Your task to perform on an android device: Go to Yahoo.com Image 0: 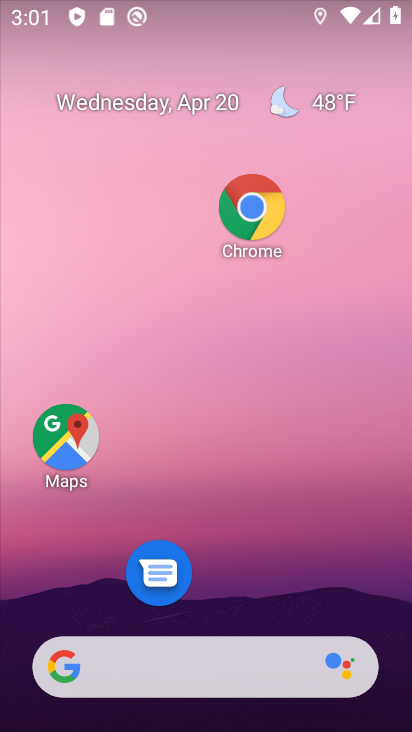
Step 0: drag from (277, 598) to (317, 216)
Your task to perform on an android device: Go to Yahoo.com Image 1: 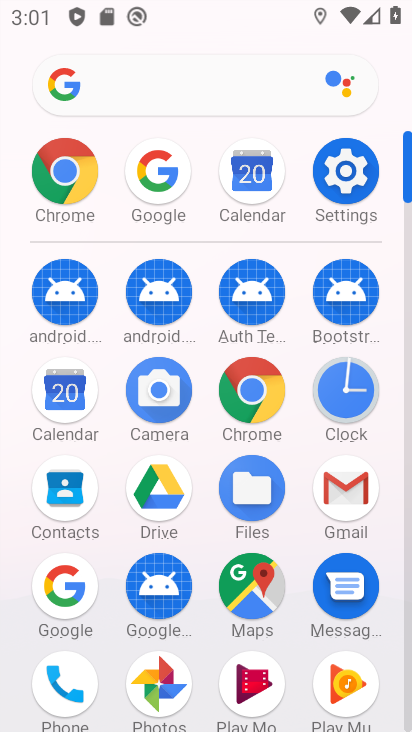
Step 1: click (249, 416)
Your task to perform on an android device: Go to Yahoo.com Image 2: 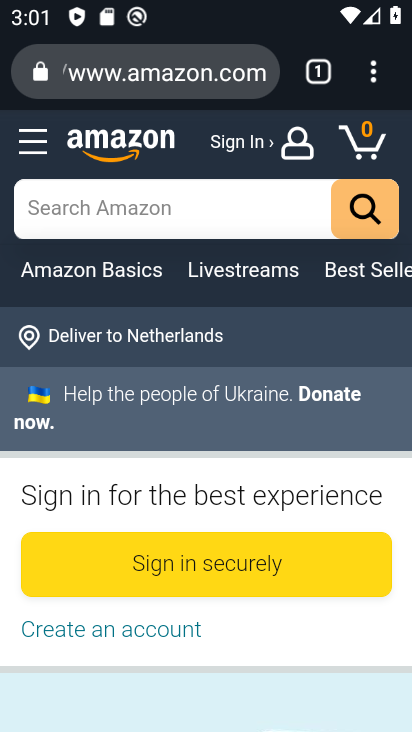
Step 2: click (370, 69)
Your task to perform on an android device: Go to Yahoo.com Image 3: 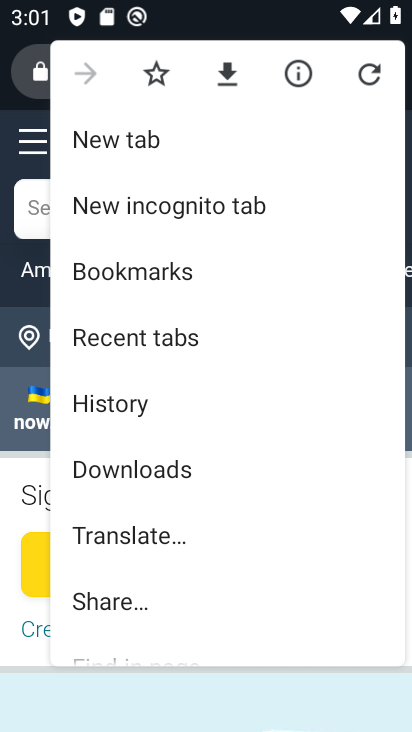
Step 3: click (32, 294)
Your task to perform on an android device: Go to Yahoo.com Image 4: 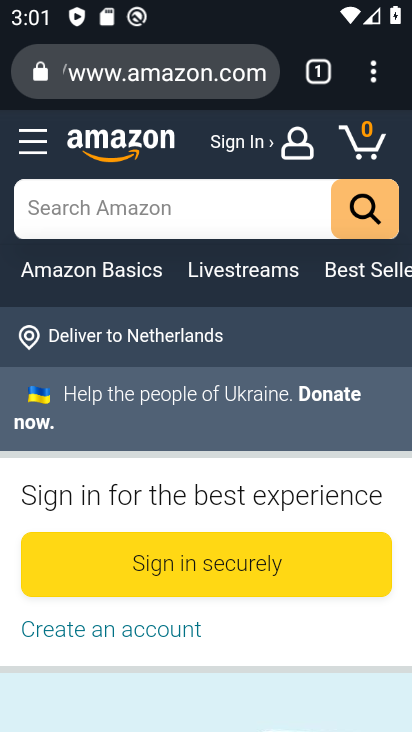
Step 4: drag from (313, 74) to (205, 483)
Your task to perform on an android device: Go to Yahoo.com Image 5: 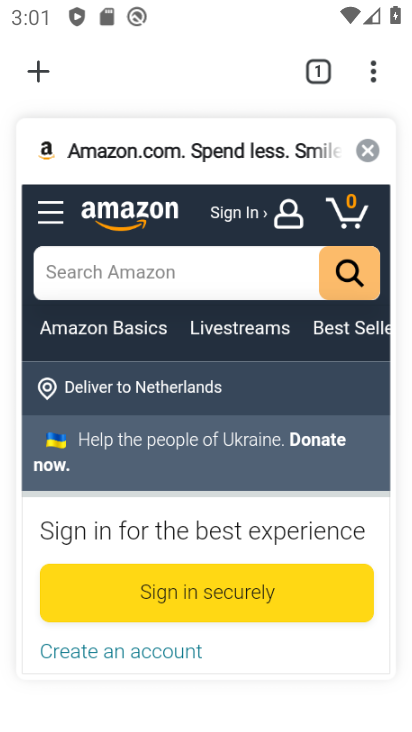
Step 5: click (28, 57)
Your task to perform on an android device: Go to Yahoo.com Image 6: 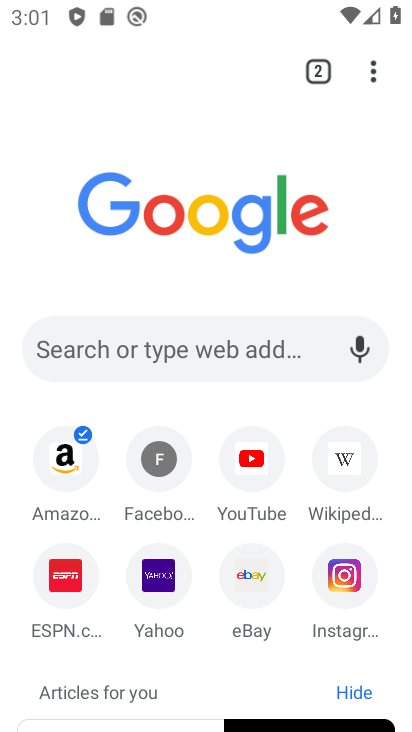
Step 6: click (159, 587)
Your task to perform on an android device: Go to Yahoo.com Image 7: 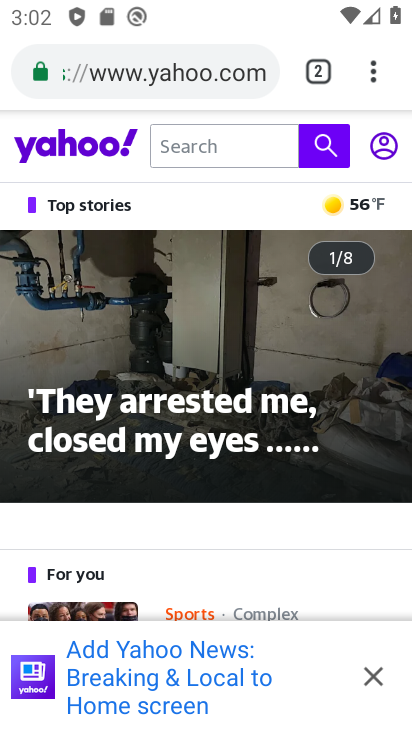
Step 7: task complete